Your task to perform on an android device: Open accessibility settings Image 0: 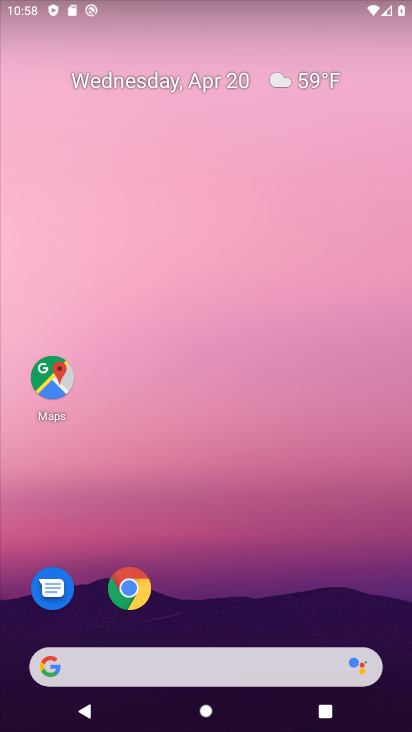
Step 0: drag from (217, 724) to (192, 87)
Your task to perform on an android device: Open accessibility settings Image 1: 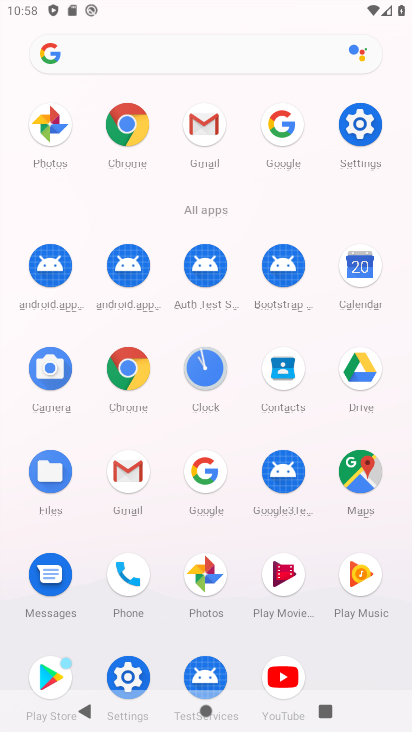
Step 1: click (357, 127)
Your task to perform on an android device: Open accessibility settings Image 2: 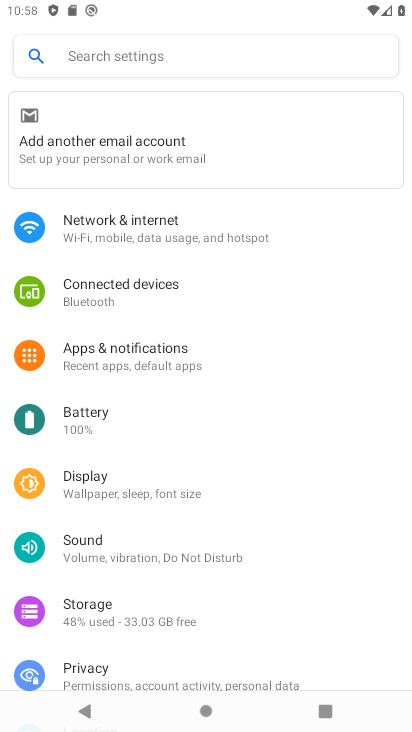
Step 2: drag from (159, 645) to (181, 232)
Your task to perform on an android device: Open accessibility settings Image 3: 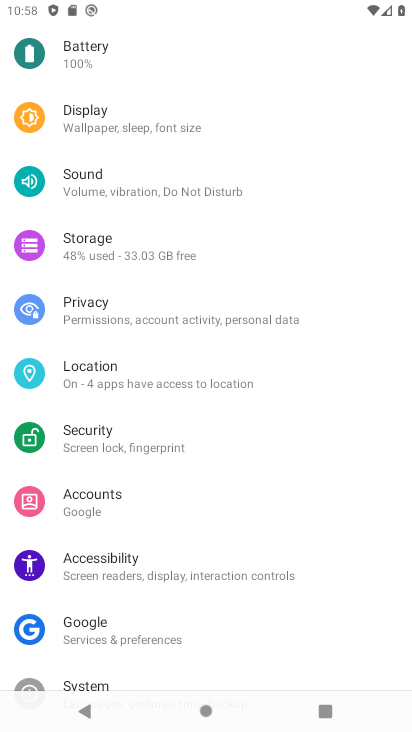
Step 3: click (141, 571)
Your task to perform on an android device: Open accessibility settings Image 4: 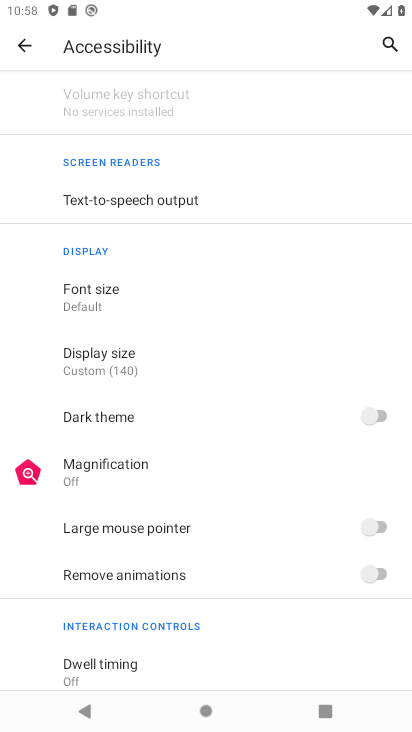
Step 4: task complete